Your task to perform on an android device: Go to ESPN.com Image 0: 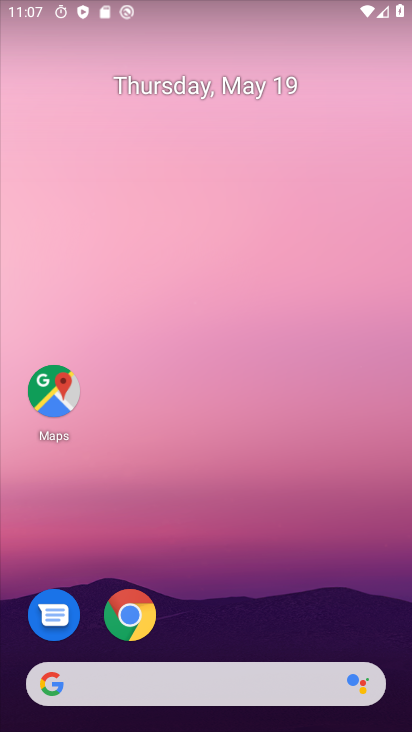
Step 0: click (134, 595)
Your task to perform on an android device: Go to ESPN.com Image 1: 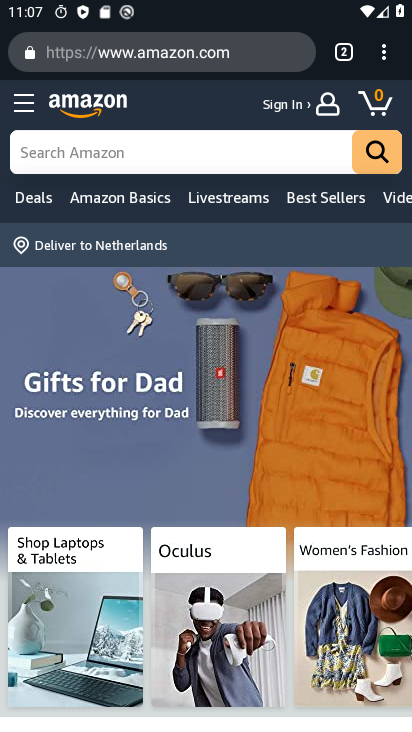
Step 1: click (226, 54)
Your task to perform on an android device: Go to ESPN.com Image 2: 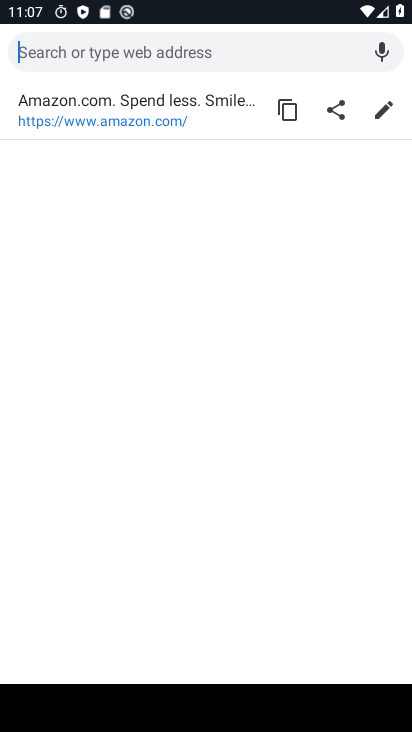
Step 2: type "espn.com"
Your task to perform on an android device: Go to ESPN.com Image 3: 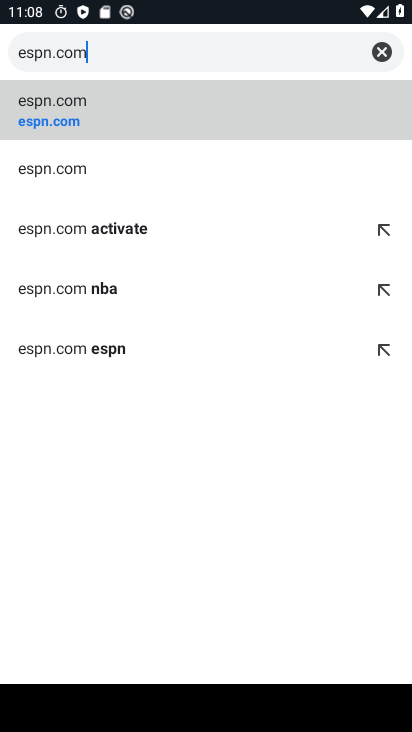
Step 3: click (132, 117)
Your task to perform on an android device: Go to ESPN.com Image 4: 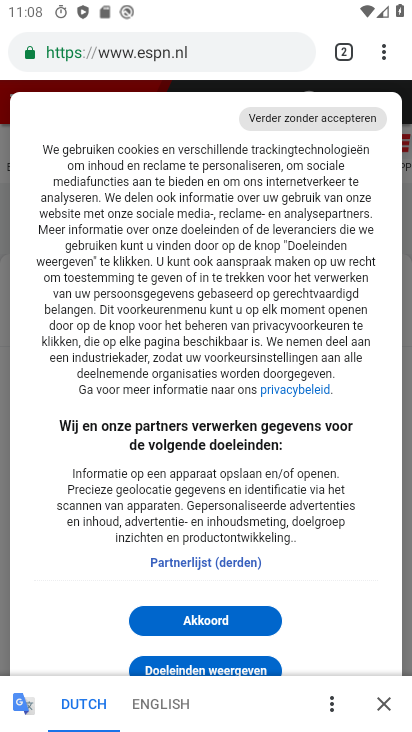
Step 4: task complete